Your task to perform on an android device: Open the phone app and click the voicemail tab. Image 0: 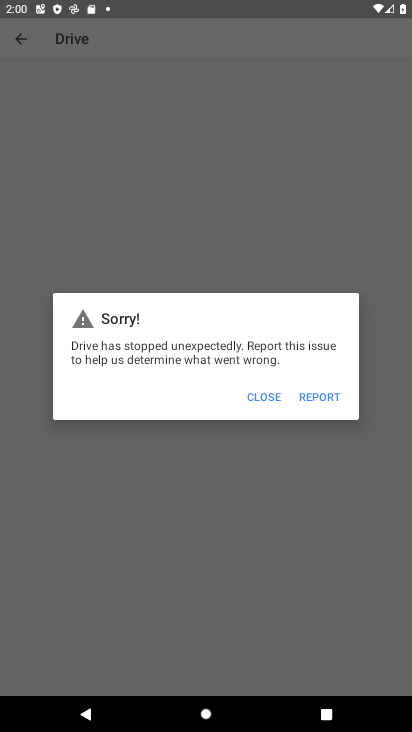
Step 0: press home button
Your task to perform on an android device: Open the phone app and click the voicemail tab. Image 1: 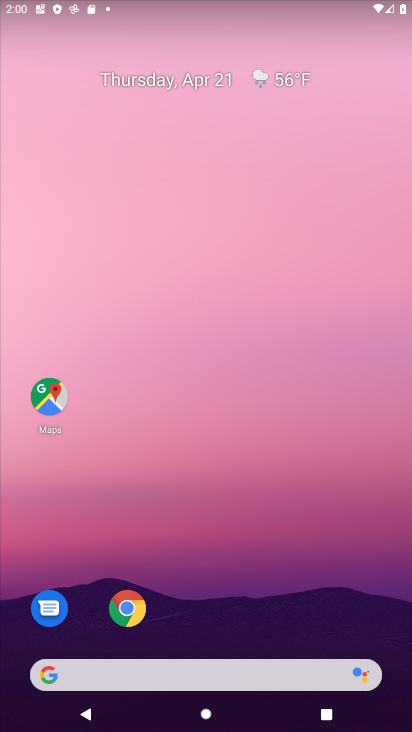
Step 1: drag from (205, 281) to (205, 68)
Your task to perform on an android device: Open the phone app and click the voicemail tab. Image 2: 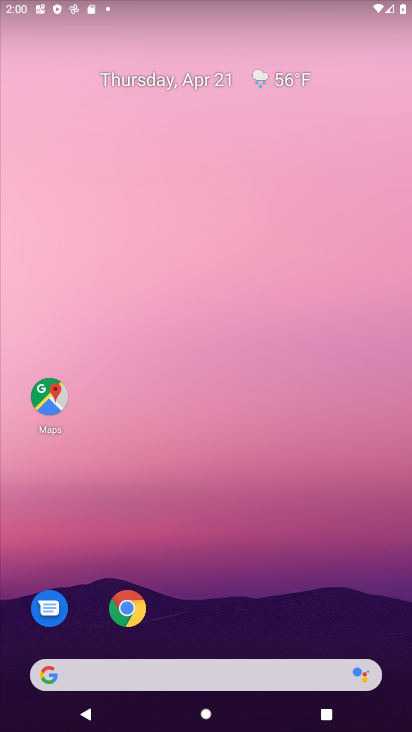
Step 2: drag from (225, 413) to (222, 34)
Your task to perform on an android device: Open the phone app and click the voicemail tab. Image 3: 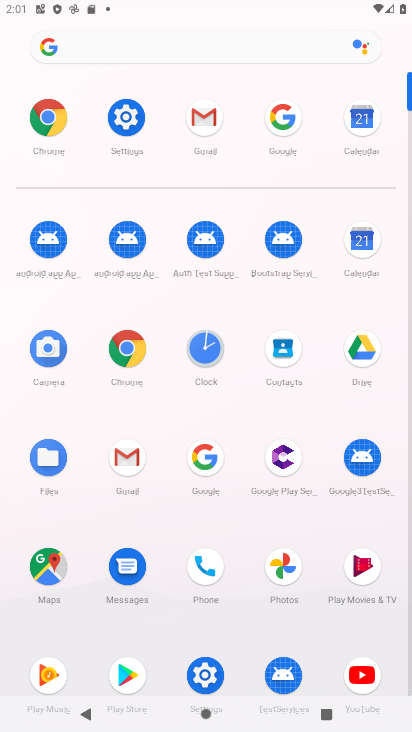
Step 3: click (211, 567)
Your task to perform on an android device: Open the phone app and click the voicemail tab. Image 4: 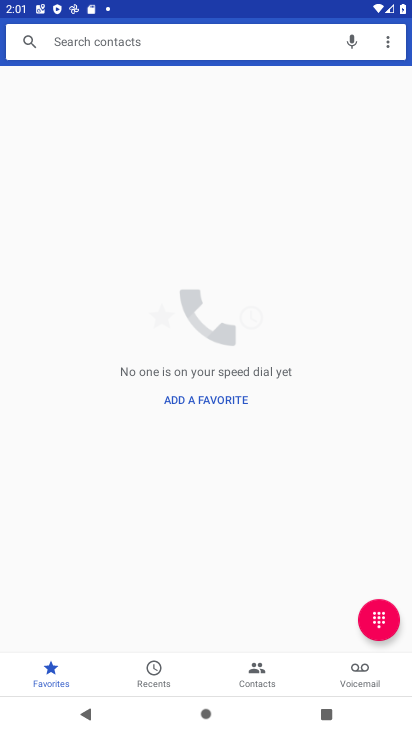
Step 4: click (358, 666)
Your task to perform on an android device: Open the phone app and click the voicemail tab. Image 5: 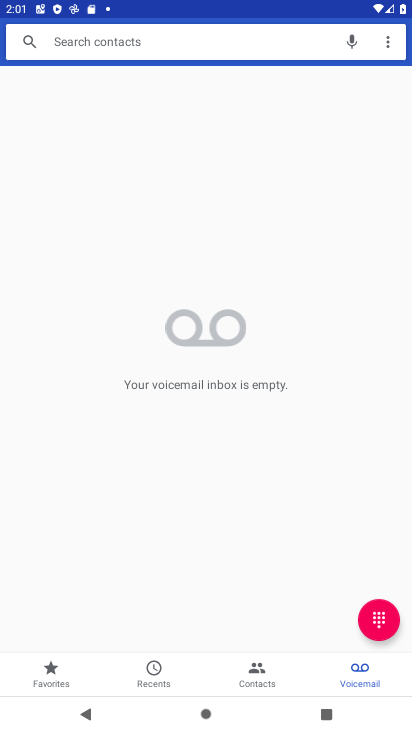
Step 5: task complete